Your task to perform on an android device: Open settings Image 0: 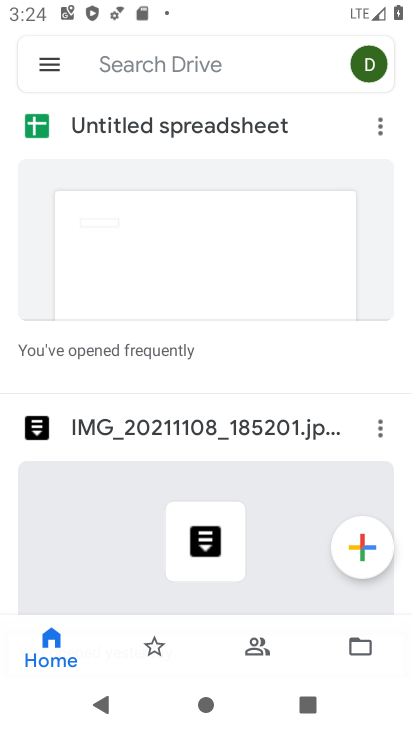
Step 0: drag from (265, 21) to (248, 628)
Your task to perform on an android device: Open settings Image 1: 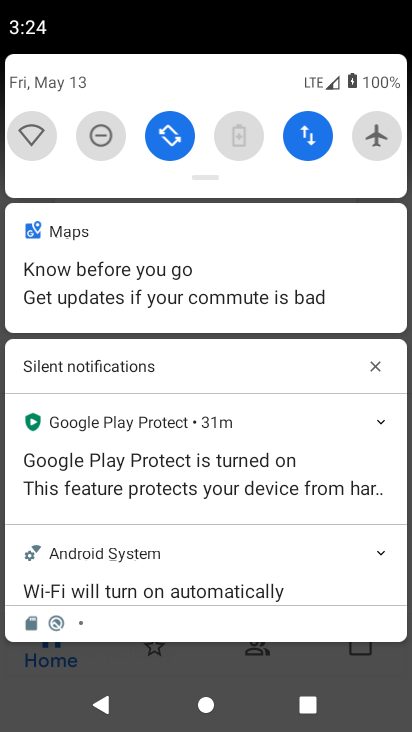
Step 1: drag from (184, 78) to (201, 652)
Your task to perform on an android device: Open settings Image 2: 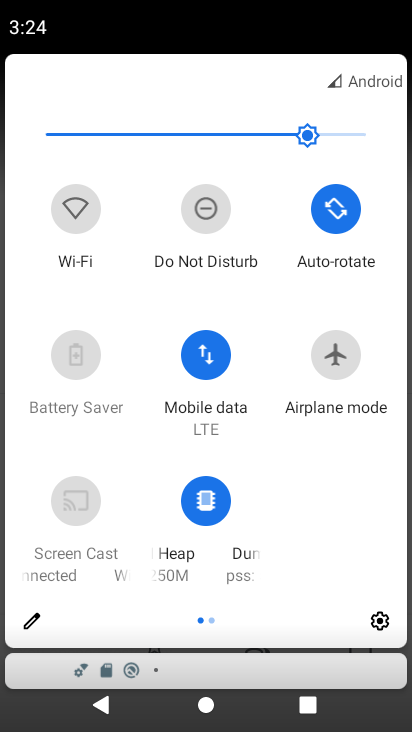
Step 2: click (386, 627)
Your task to perform on an android device: Open settings Image 3: 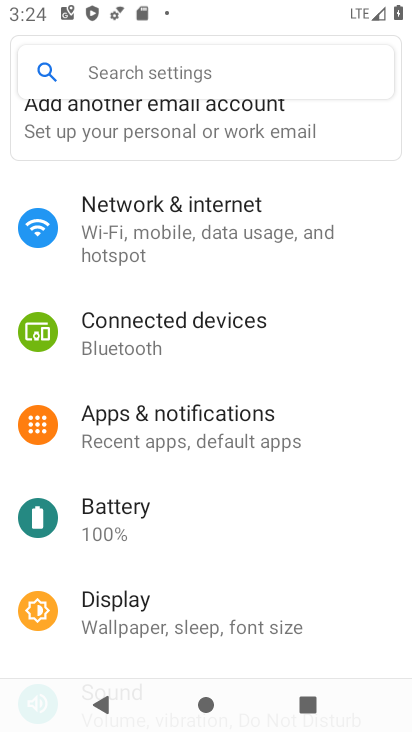
Step 3: task complete